Your task to perform on an android device: turn on sleep mode Image 0: 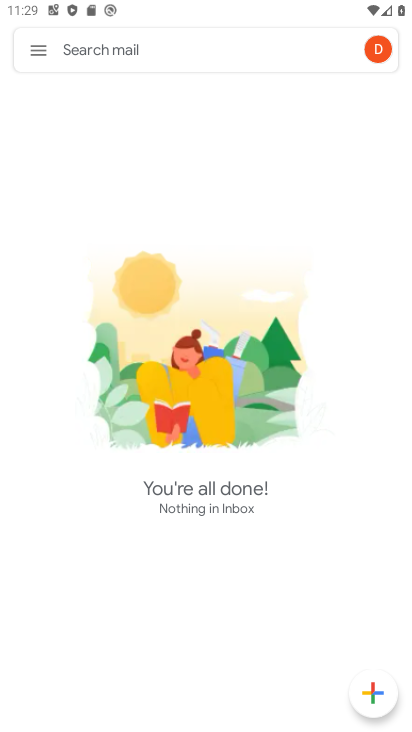
Step 0: press back button
Your task to perform on an android device: turn on sleep mode Image 1: 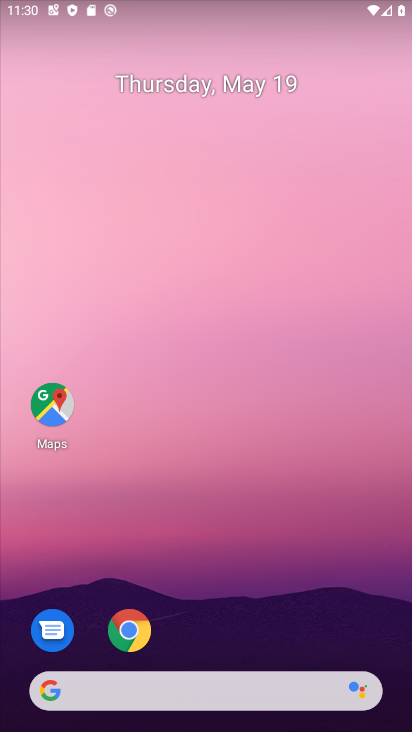
Step 1: press back button
Your task to perform on an android device: turn on sleep mode Image 2: 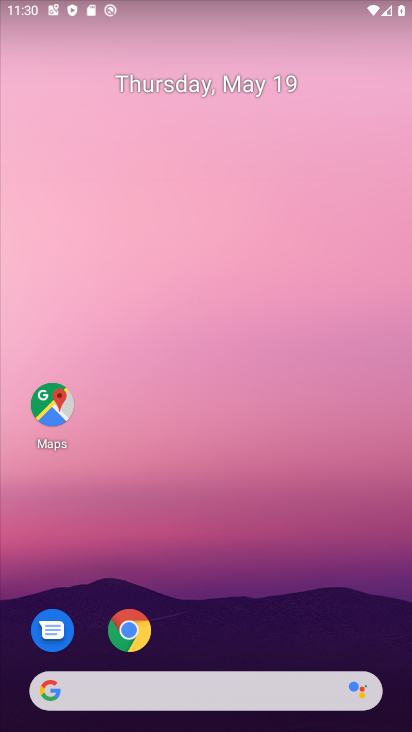
Step 2: drag from (211, 626) to (154, 182)
Your task to perform on an android device: turn on sleep mode Image 3: 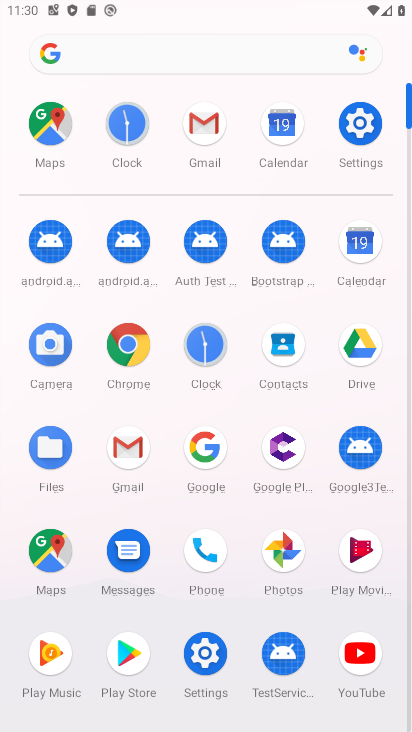
Step 3: click (359, 125)
Your task to perform on an android device: turn on sleep mode Image 4: 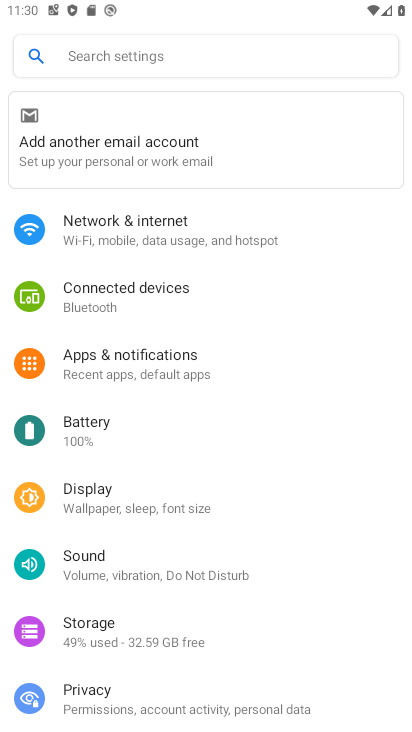
Step 4: click (128, 507)
Your task to perform on an android device: turn on sleep mode Image 5: 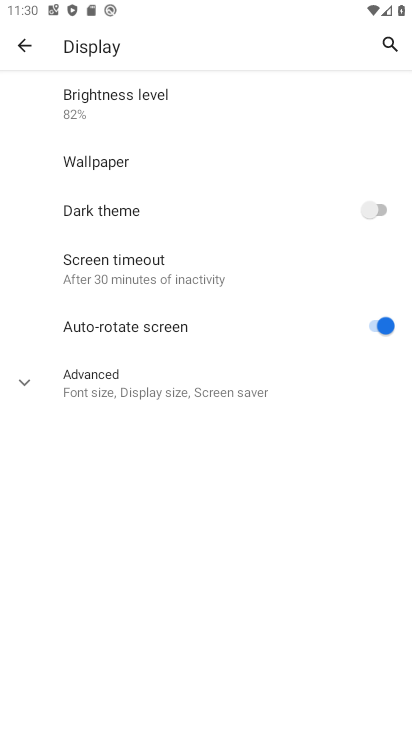
Step 5: click (123, 380)
Your task to perform on an android device: turn on sleep mode Image 6: 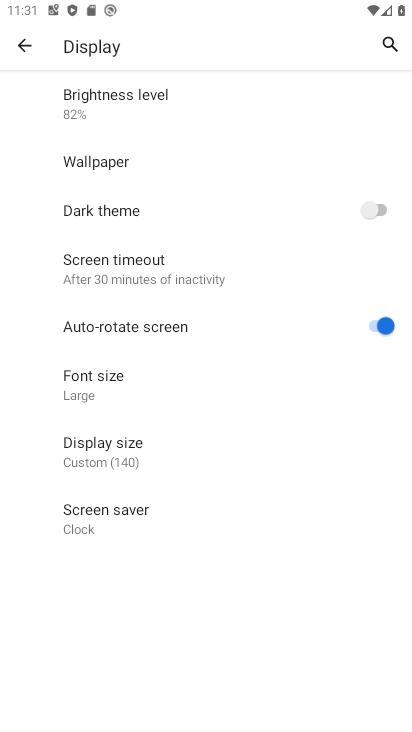
Step 6: click (146, 267)
Your task to perform on an android device: turn on sleep mode Image 7: 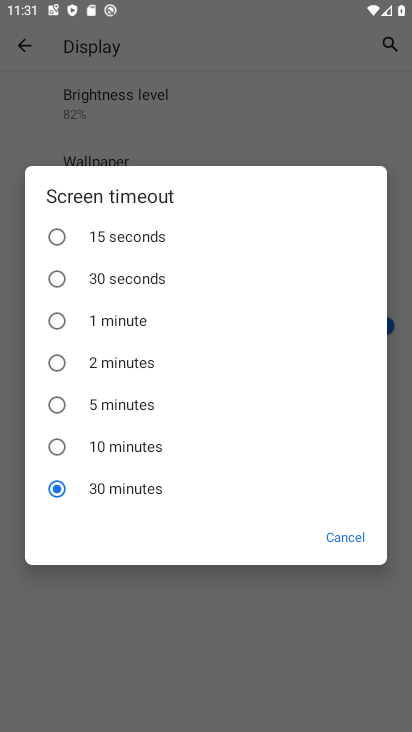
Step 7: task complete